Your task to perform on an android device: see sites visited before in the chrome app Image 0: 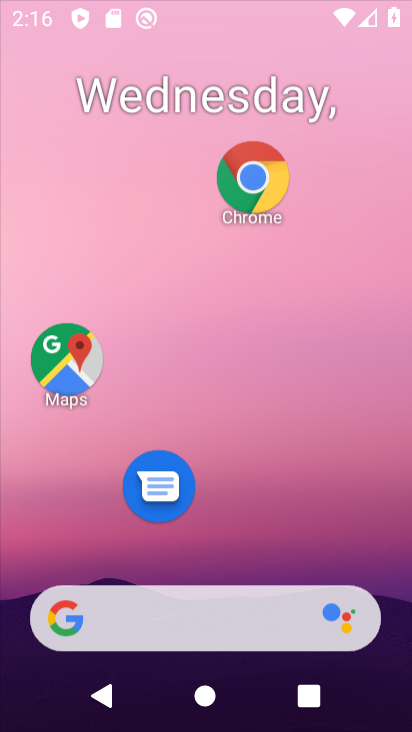
Step 0: press home button
Your task to perform on an android device: see sites visited before in the chrome app Image 1: 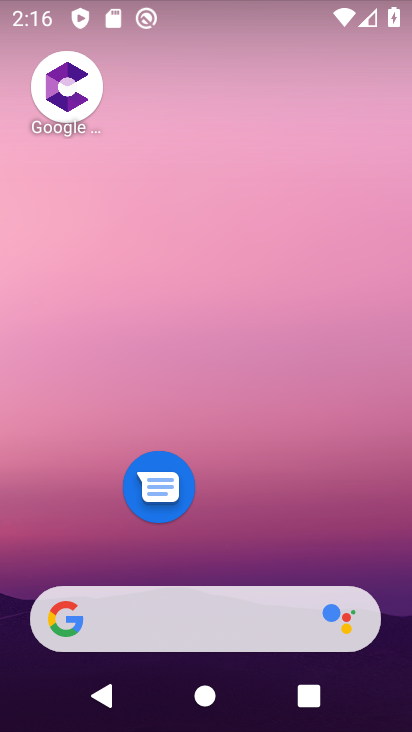
Step 1: drag from (252, 542) to (231, 69)
Your task to perform on an android device: see sites visited before in the chrome app Image 2: 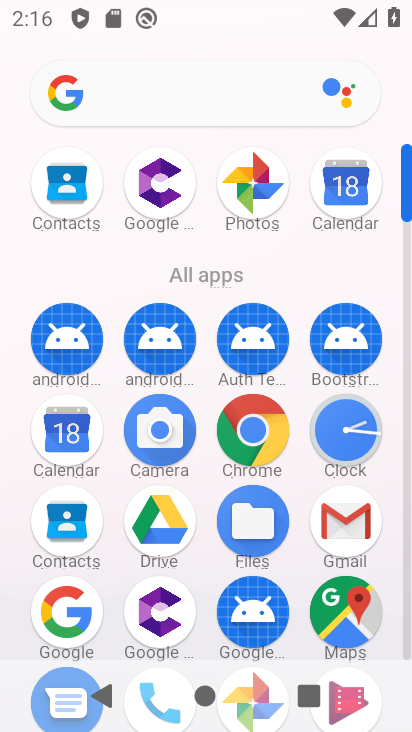
Step 2: click (248, 435)
Your task to perform on an android device: see sites visited before in the chrome app Image 3: 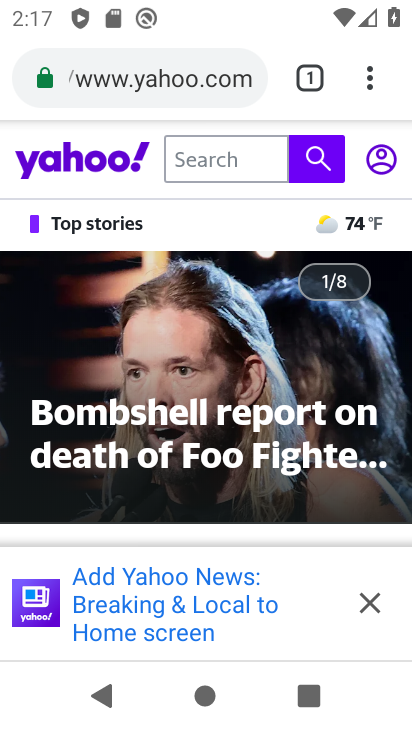
Step 3: click (353, 86)
Your task to perform on an android device: see sites visited before in the chrome app Image 4: 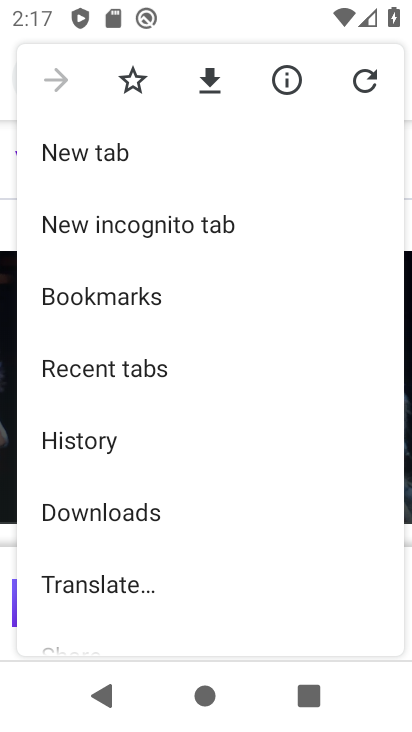
Step 4: click (95, 432)
Your task to perform on an android device: see sites visited before in the chrome app Image 5: 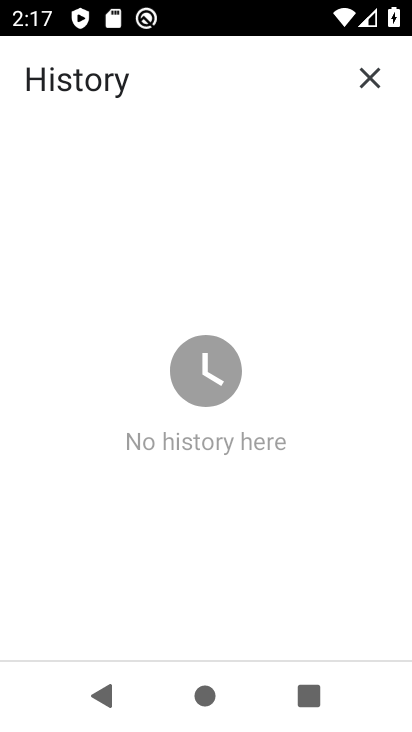
Step 5: task complete